Your task to perform on an android device: Open settings on Google Maps Image 0: 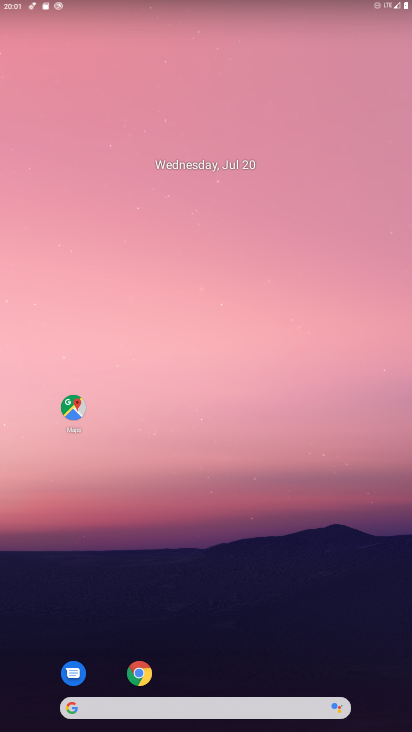
Step 0: drag from (259, 652) to (260, 110)
Your task to perform on an android device: Open settings on Google Maps Image 1: 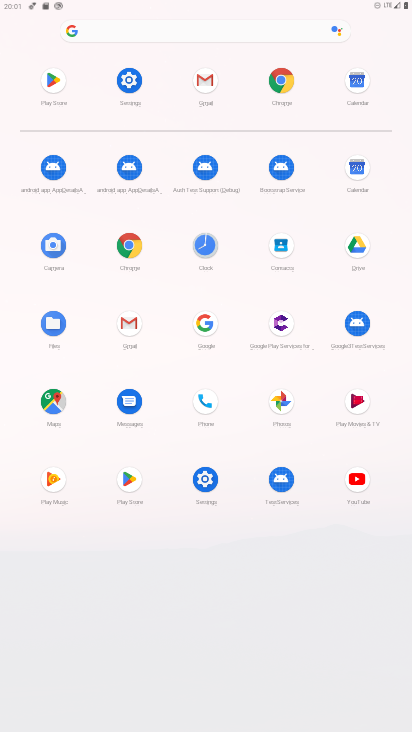
Step 1: click (50, 405)
Your task to perform on an android device: Open settings on Google Maps Image 2: 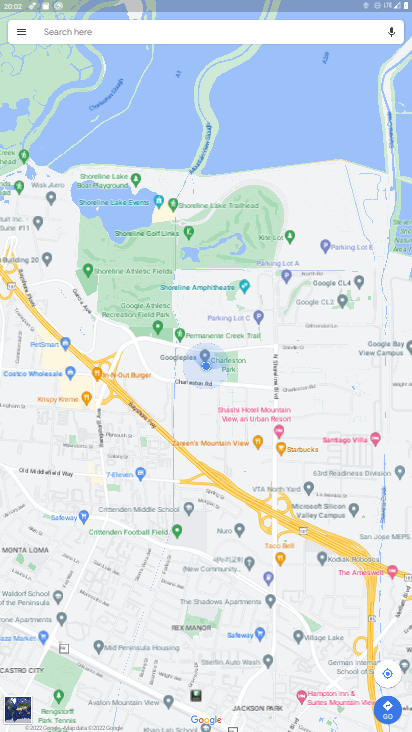
Step 2: click (18, 27)
Your task to perform on an android device: Open settings on Google Maps Image 3: 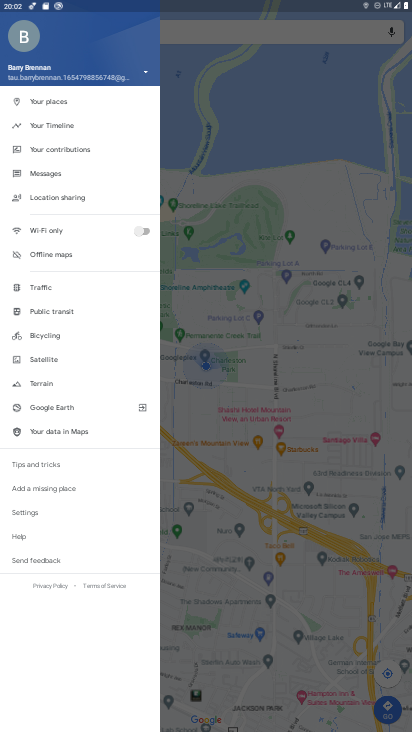
Step 3: click (36, 513)
Your task to perform on an android device: Open settings on Google Maps Image 4: 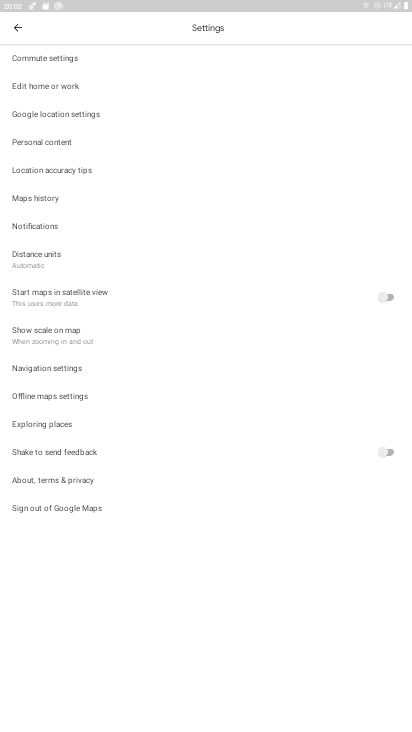
Step 4: task complete